Your task to perform on an android device: Empty the shopping cart on target.com. Search for logitech g pro on target.com, select the first entry, add it to the cart, then select checkout. Image 0: 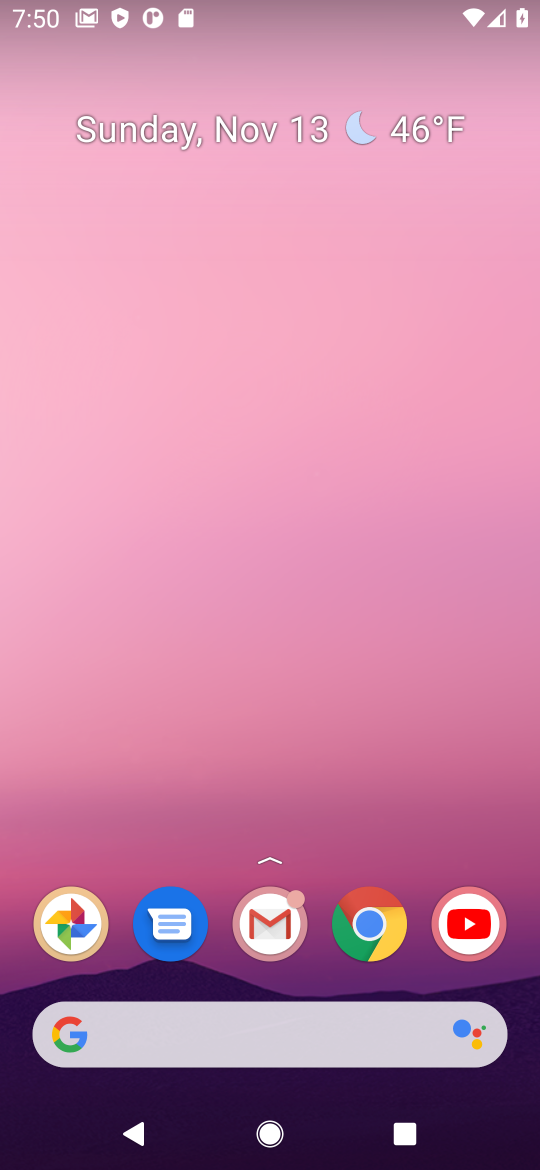
Step 0: click (370, 926)
Your task to perform on an android device: Empty the shopping cart on target.com. Search for logitech g pro on target.com, select the first entry, add it to the cart, then select checkout. Image 1: 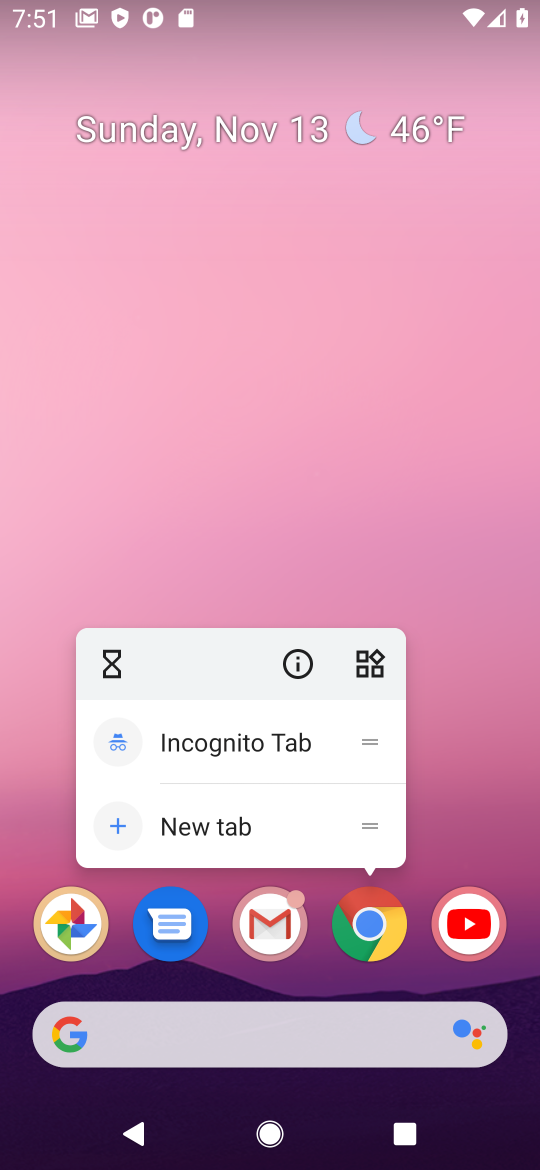
Step 1: click (370, 926)
Your task to perform on an android device: Empty the shopping cart on target.com. Search for logitech g pro on target.com, select the first entry, add it to the cart, then select checkout. Image 2: 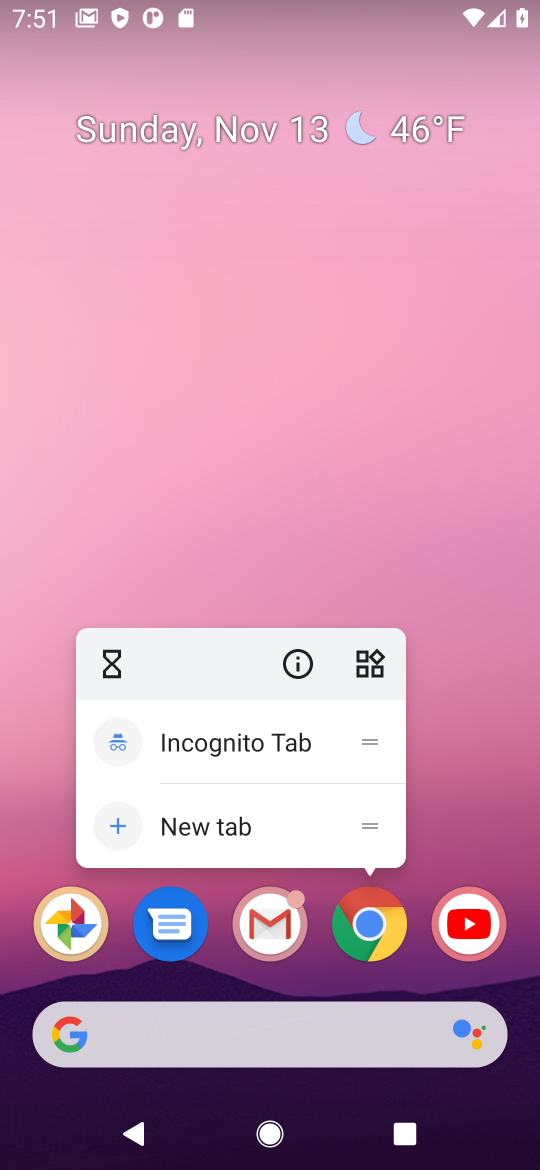
Step 2: click (375, 926)
Your task to perform on an android device: Empty the shopping cart on target.com. Search for logitech g pro on target.com, select the first entry, add it to the cart, then select checkout. Image 3: 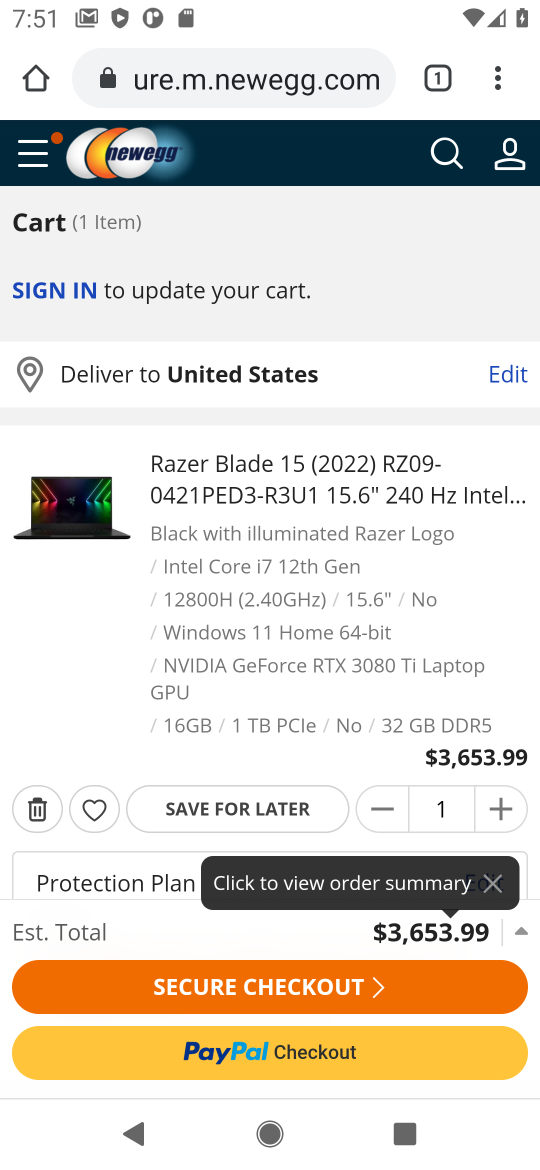
Step 3: click (316, 79)
Your task to perform on an android device: Empty the shopping cart on target.com. Search for logitech g pro on target.com, select the first entry, add it to the cart, then select checkout. Image 4: 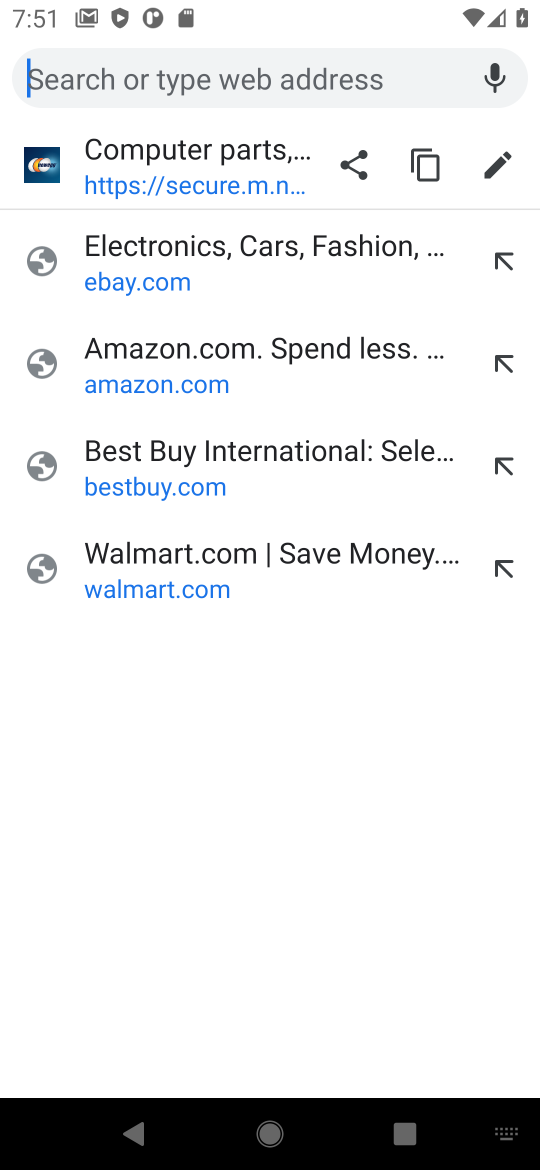
Step 4: type "target.com"
Your task to perform on an android device: Empty the shopping cart on target.com. Search for logitech g pro on target.com, select the first entry, add it to the cart, then select checkout. Image 5: 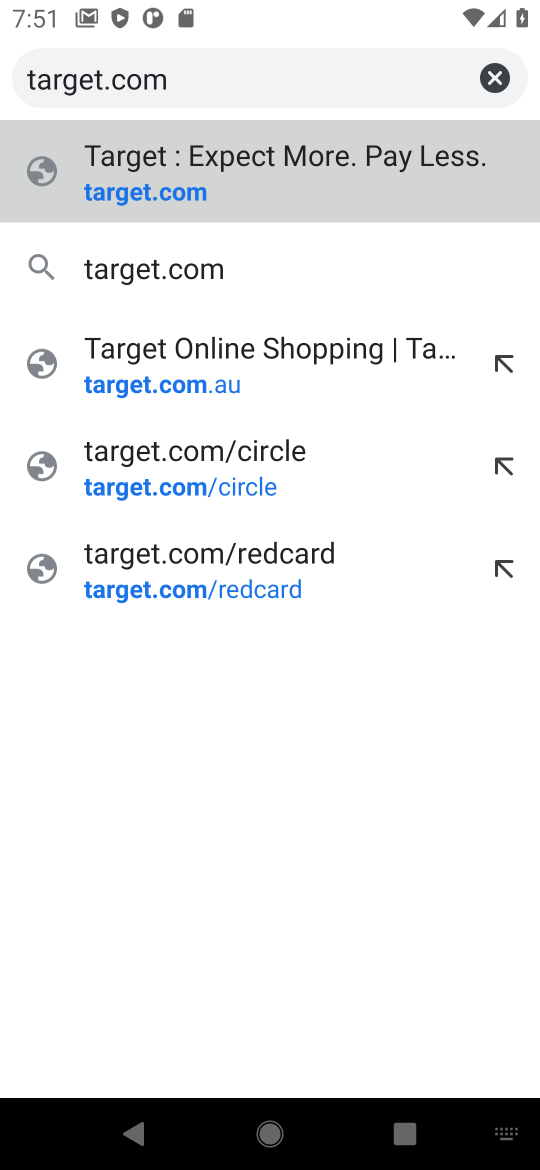
Step 5: press enter
Your task to perform on an android device: Empty the shopping cart on target.com. Search for logitech g pro on target.com, select the first entry, add it to the cart, then select checkout. Image 6: 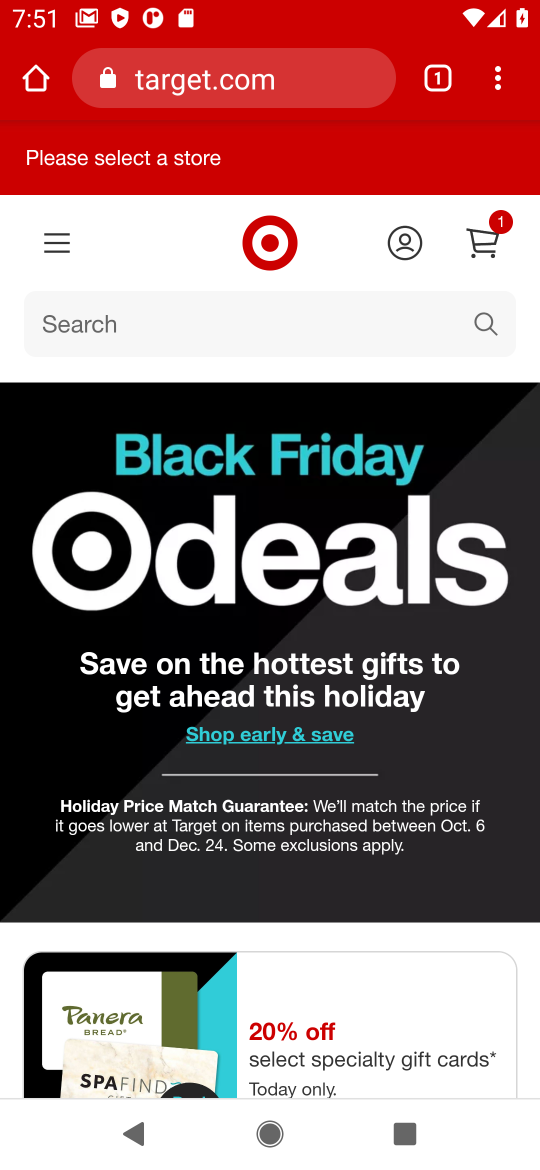
Step 6: click (164, 314)
Your task to perform on an android device: Empty the shopping cart on target.com. Search for logitech g pro on target.com, select the first entry, add it to the cart, then select checkout. Image 7: 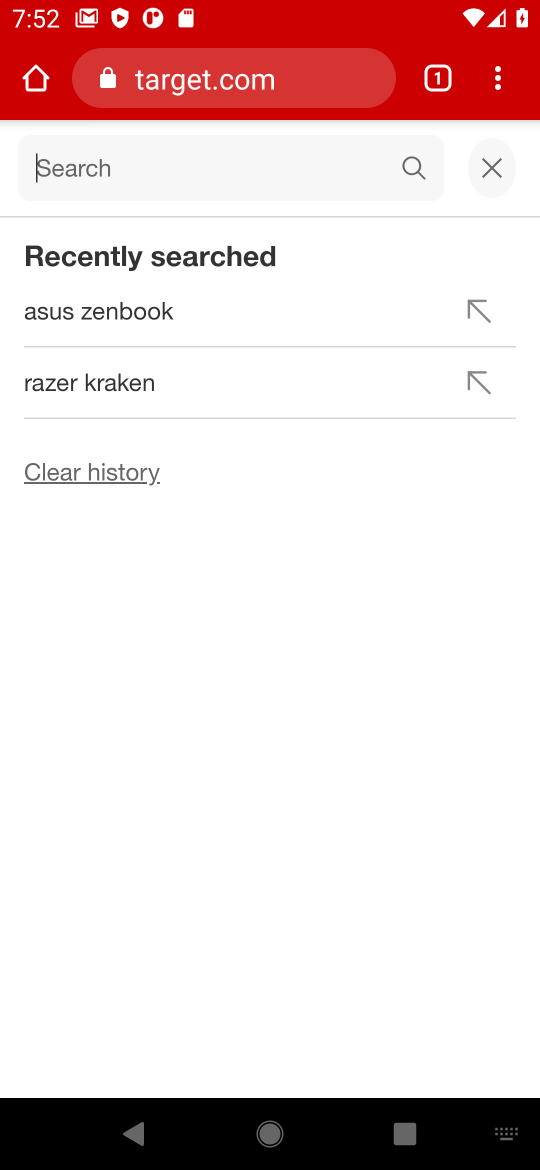
Step 7: type "logitech g pro "
Your task to perform on an android device: Empty the shopping cart on target.com. Search for logitech g pro on target.com, select the first entry, add it to the cart, then select checkout. Image 8: 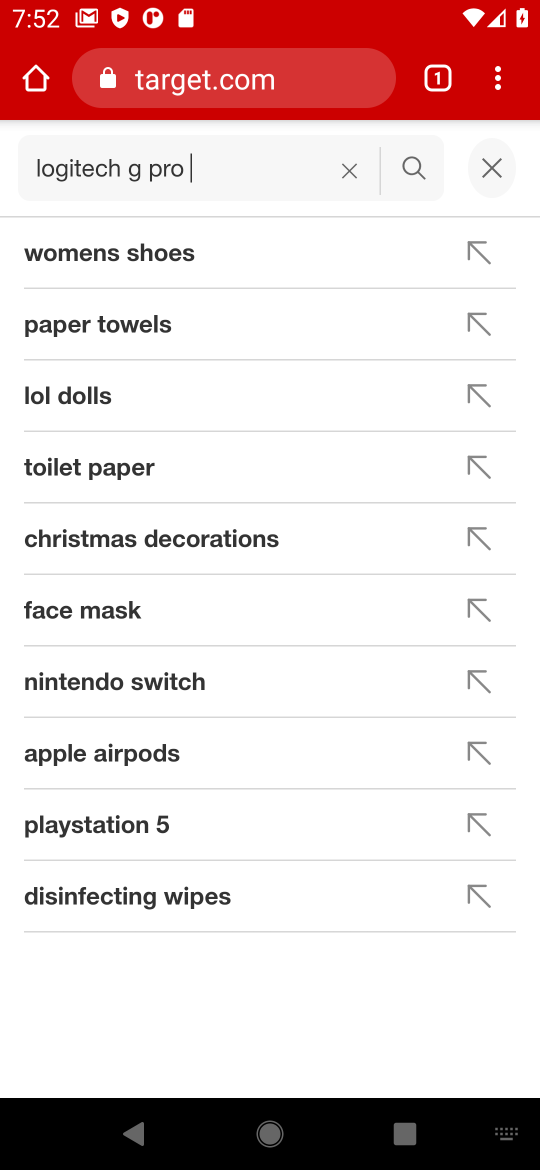
Step 8: press enter
Your task to perform on an android device: Empty the shopping cart on target.com. Search for logitech g pro on target.com, select the first entry, add it to the cart, then select checkout. Image 9: 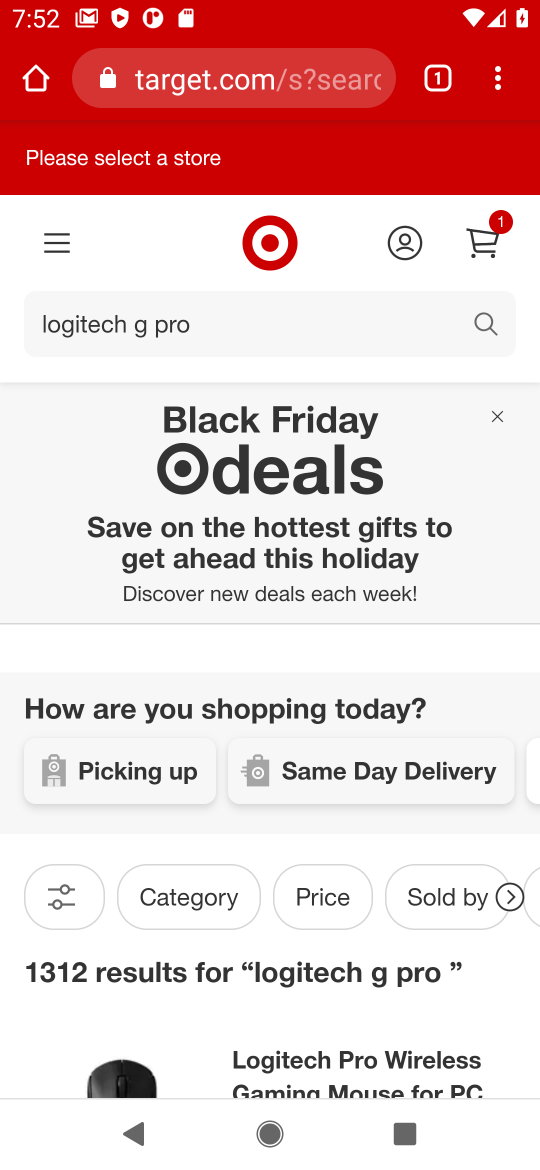
Step 9: task complete